Your task to perform on an android device: Show me popular games on the Play Store Image 0: 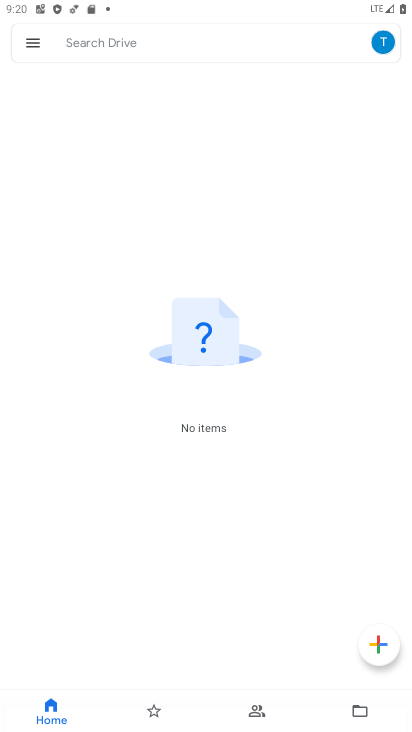
Step 0: press home button
Your task to perform on an android device: Show me popular games on the Play Store Image 1: 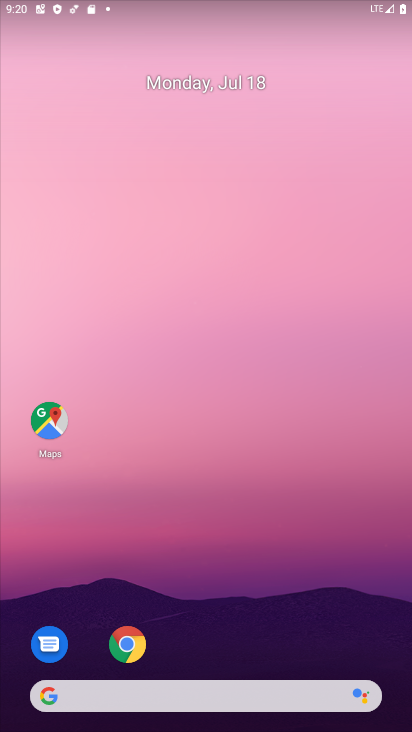
Step 1: drag from (203, 675) to (126, 110)
Your task to perform on an android device: Show me popular games on the Play Store Image 2: 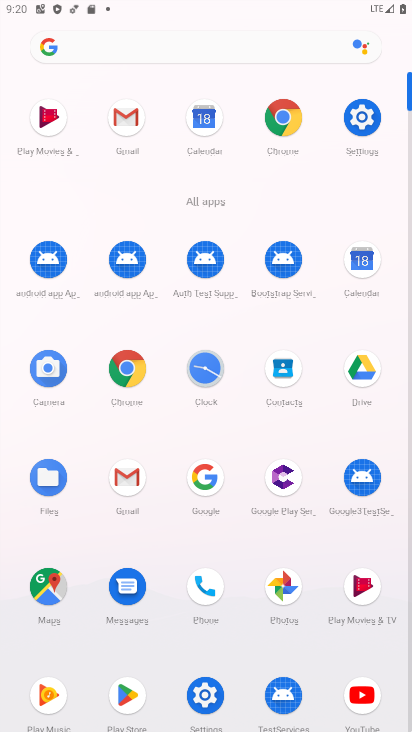
Step 2: click (127, 688)
Your task to perform on an android device: Show me popular games on the Play Store Image 3: 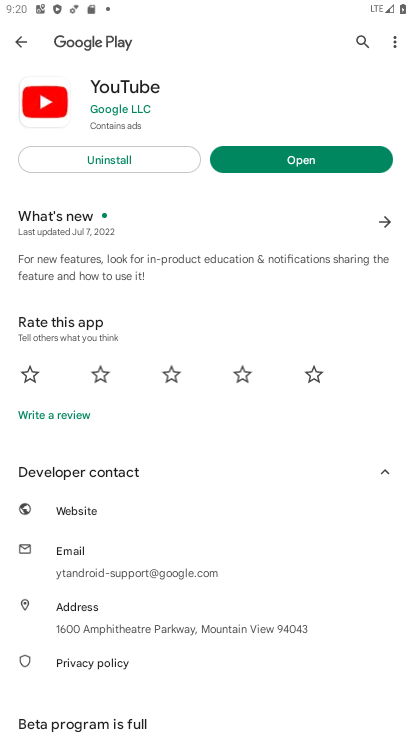
Step 3: click (266, 162)
Your task to perform on an android device: Show me popular games on the Play Store Image 4: 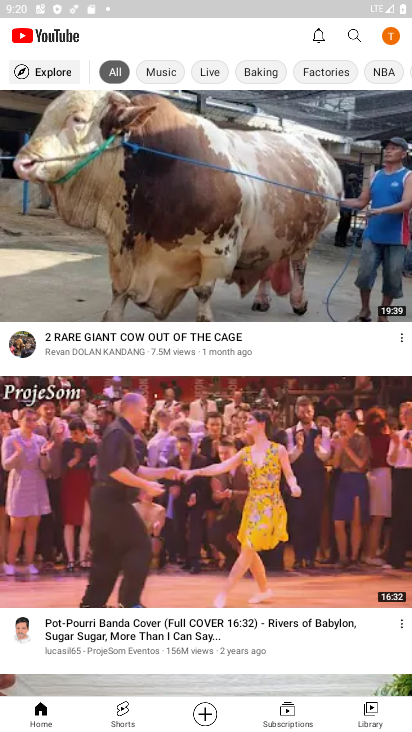
Step 4: click (19, 64)
Your task to perform on an android device: Show me popular games on the Play Store Image 5: 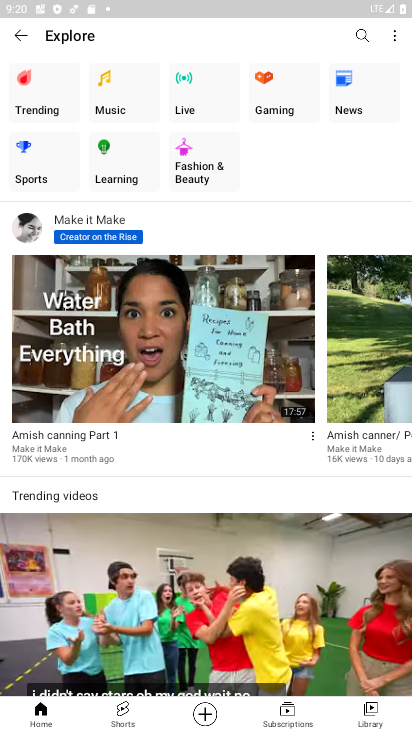
Step 5: click (43, 90)
Your task to perform on an android device: Show me popular games on the Play Store Image 6: 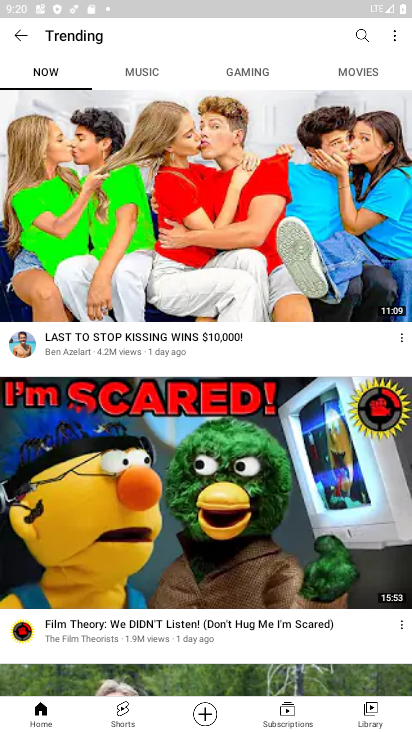
Step 6: task complete